Your task to perform on an android device: turn on the 12-hour format for clock Image 0: 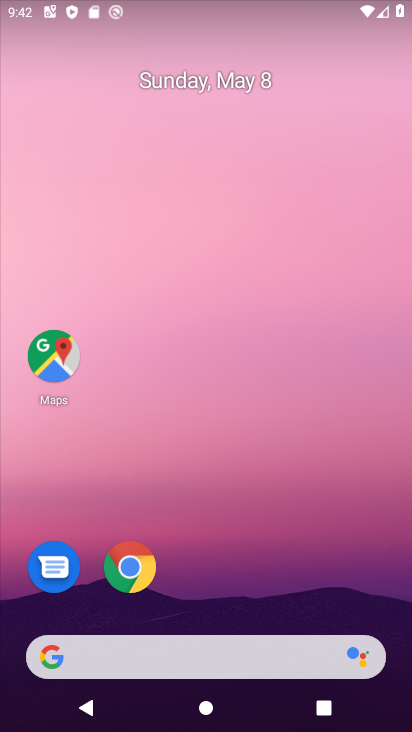
Step 0: drag from (190, 285) to (154, 118)
Your task to perform on an android device: turn on the 12-hour format for clock Image 1: 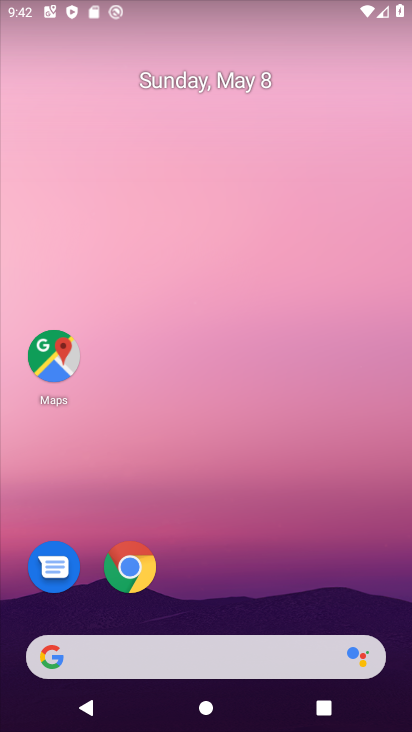
Step 1: drag from (270, 527) to (235, 162)
Your task to perform on an android device: turn on the 12-hour format for clock Image 2: 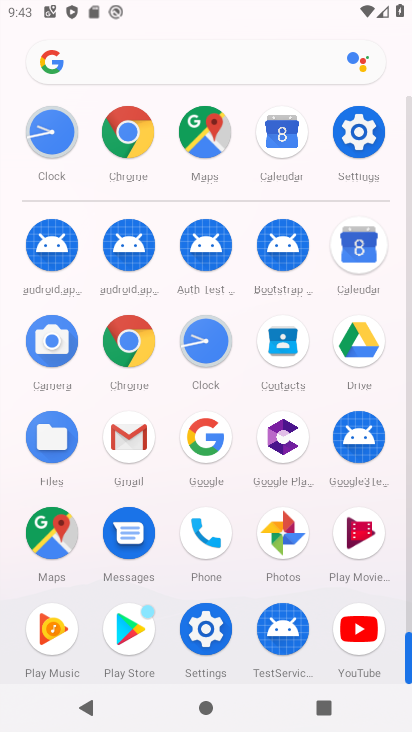
Step 2: click (210, 344)
Your task to perform on an android device: turn on the 12-hour format for clock Image 3: 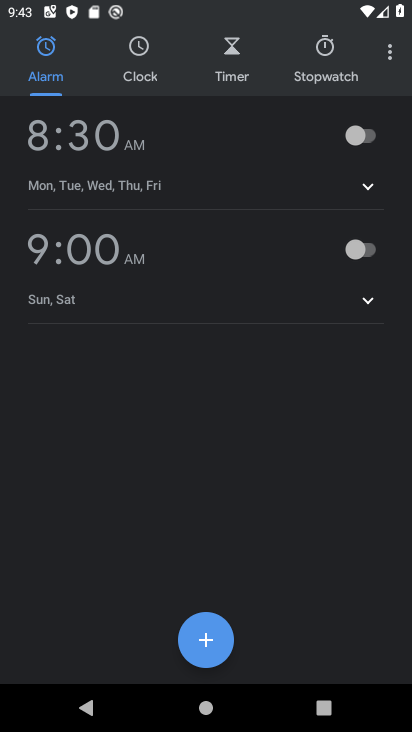
Step 3: click (210, 344)
Your task to perform on an android device: turn on the 12-hour format for clock Image 4: 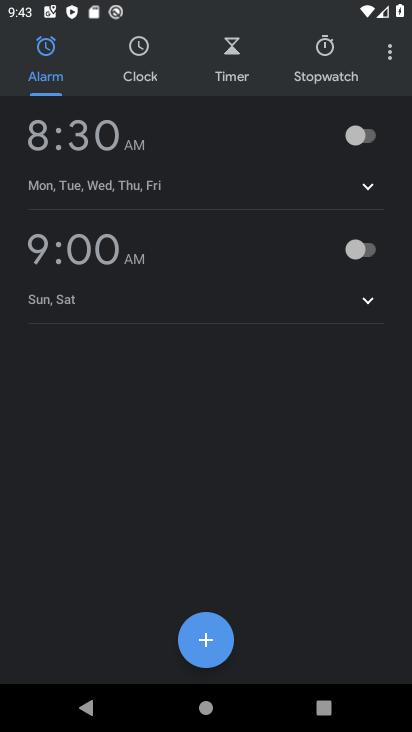
Step 4: click (384, 55)
Your task to perform on an android device: turn on the 12-hour format for clock Image 5: 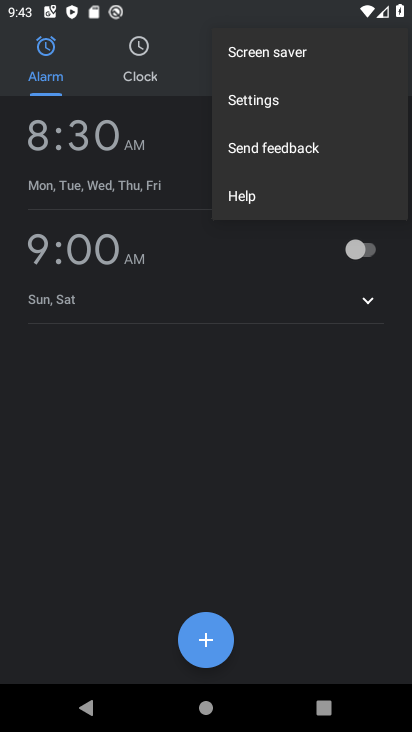
Step 5: click (266, 92)
Your task to perform on an android device: turn on the 12-hour format for clock Image 6: 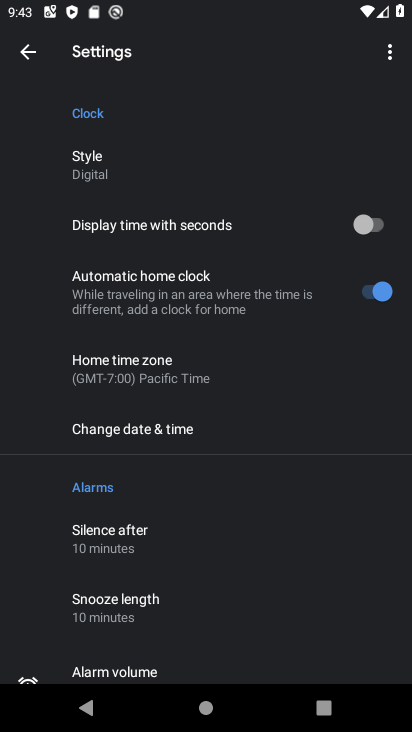
Step 6: click (137, 122)
Your task to perform on an android device: turn on the 12-hour format for clock Image 7: 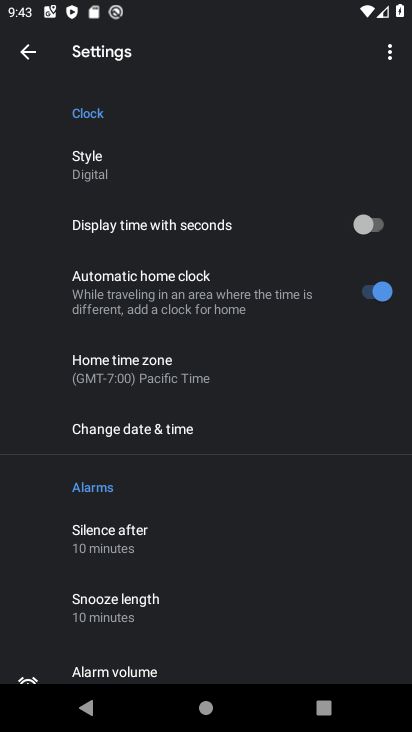
Step 7: click (197, 254)
Your task to perform on an android device: turn on the 12-hour format for clock Image 8: 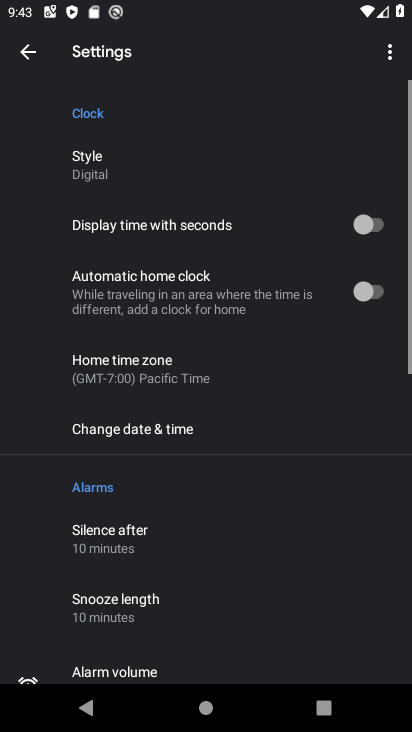
Step 8: click (142, 427)
Your task to perform on an android device: turn on the 12-hour format for clock Image 9: 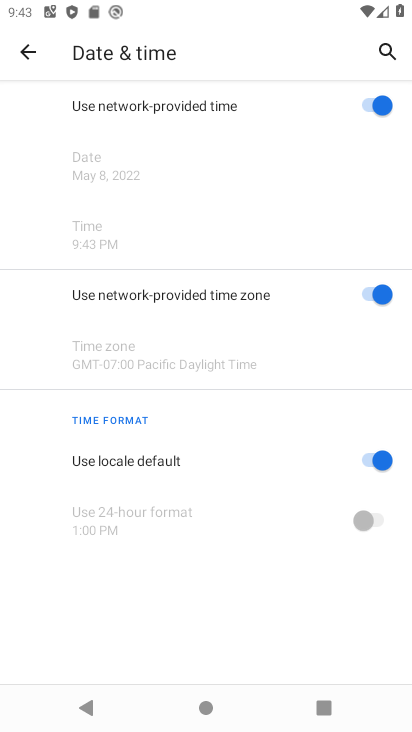
Step 9: task complete